Your task to perform on an android device: turn off sleep mode Image 0: 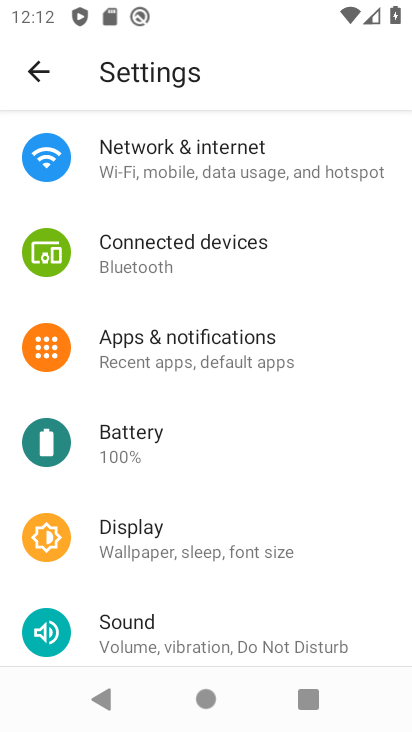
Step 0: click (195, 526)
Your task to perform on an android device: turn off sleep mode Image 1: 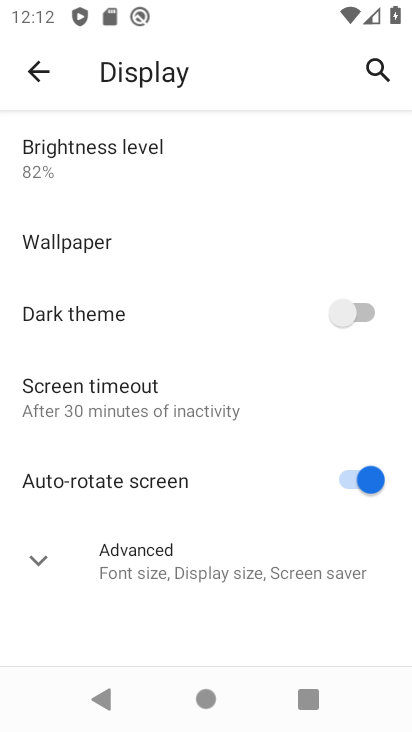
Step 1: task complete